Your task to perform on an android device: change notification settings in the gmail app Image 0: 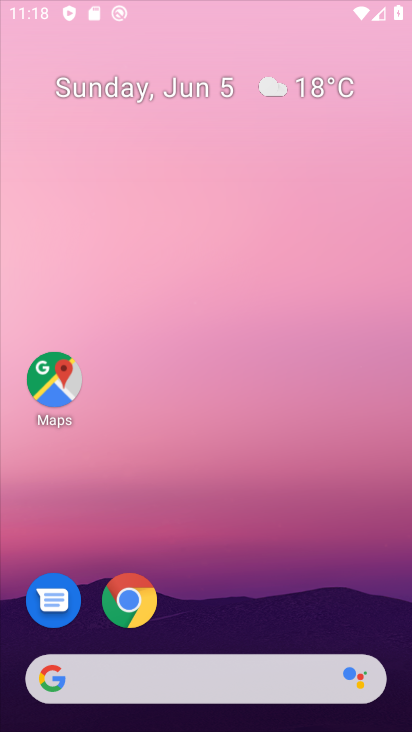
Step 0: click (170, 111)
Your task to perform on an android device: change notification settings in the gmail app Image 1: 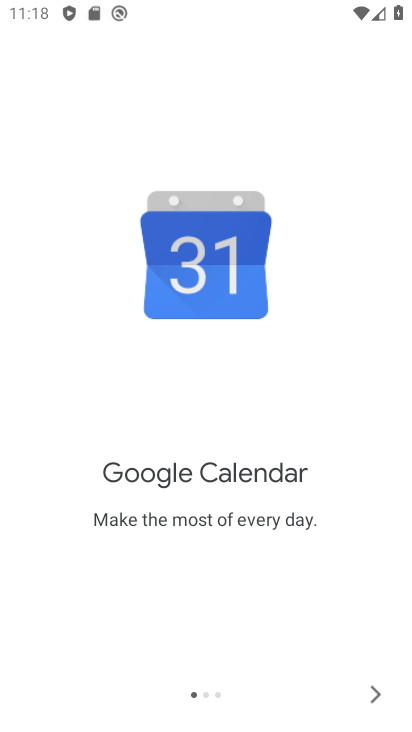
Step 1: press back button
Your task to perform on an android device: change notification settings in the gmail app Image 2: 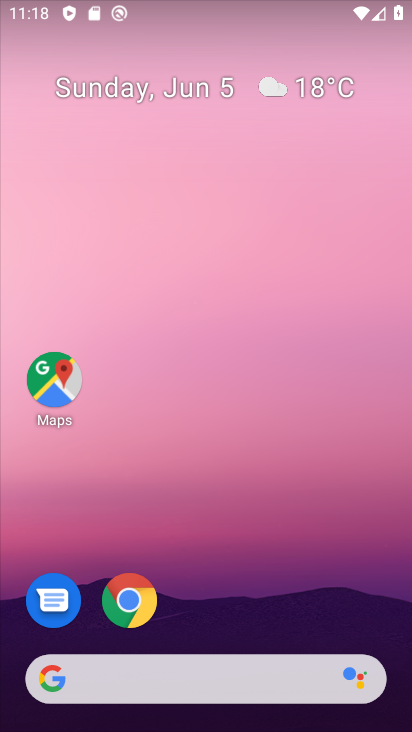
Step 2: drag from (191, 469) to (135, 108)
Your task to perform on an android device: change notification settings in the gmail app Image 3: 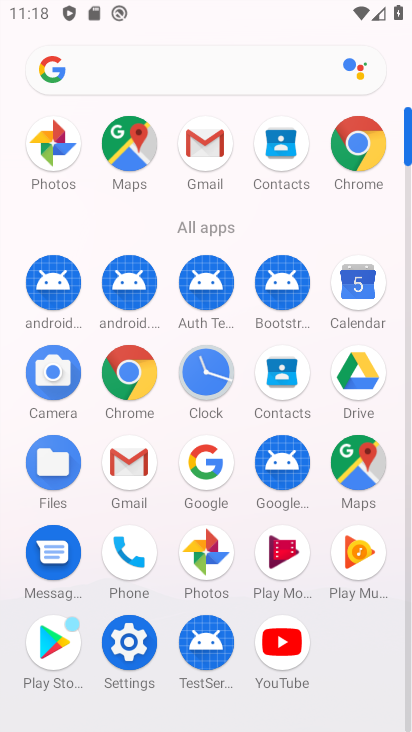
Step 3: click (203, 166)
Your task to perform on an android device: change notification settings in the gmail app Image 4: 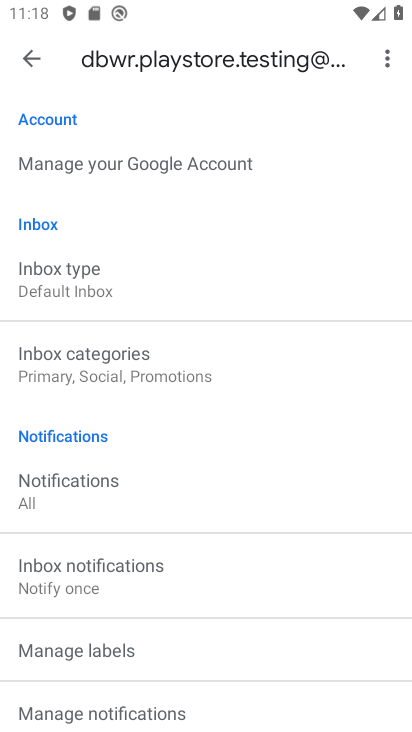
Step 4: click (65, 445)
Your task to perform on an android device: change notification settings in the gmail app Image 5: 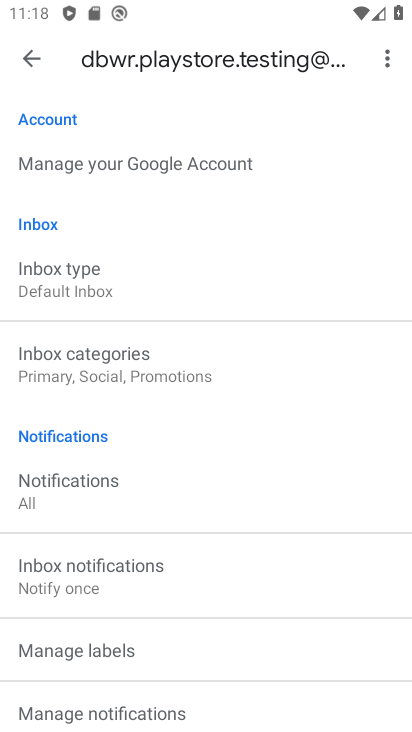
Step 5: click (62, 475)
Your task to perform on an android device: change notification settings in the gmail app Image 6: 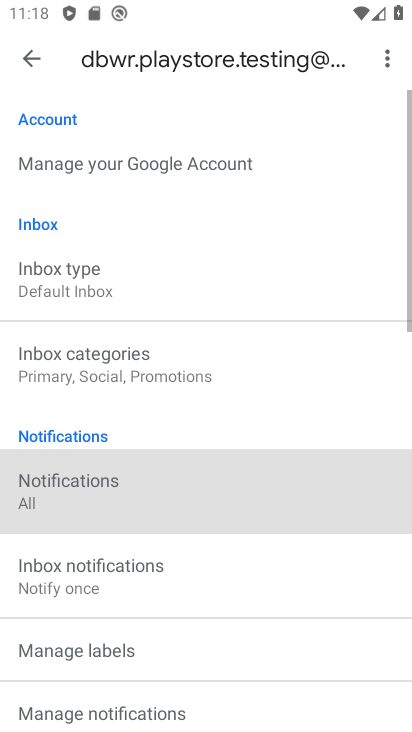
Step 6: click (62, 475)
Your task to perform on an android device: change notification settings in the gmail app Image 7: 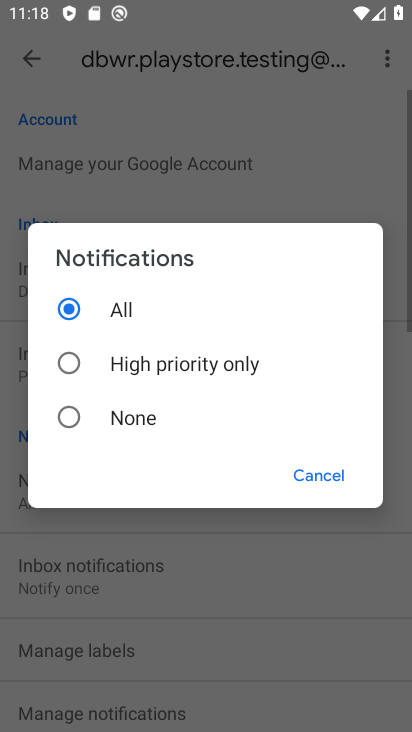
Step 7: click (62, 475)
Your task to perform on an android device: change notification settings in the gmail app Image 8: 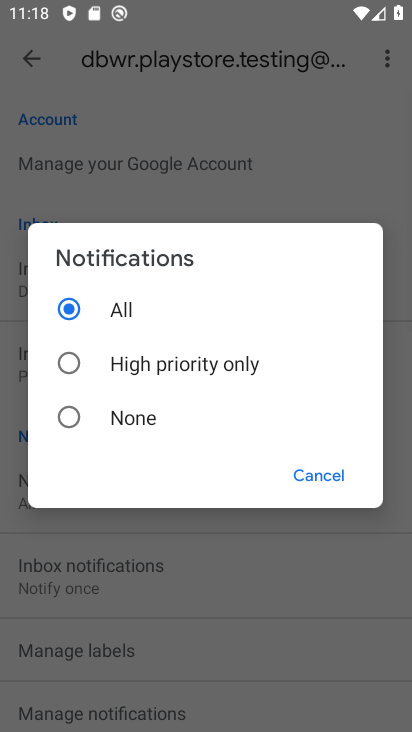
Step 8: click (66, 360)
Your task to perform on an android device: change notification settings in the gmail app Image 9: 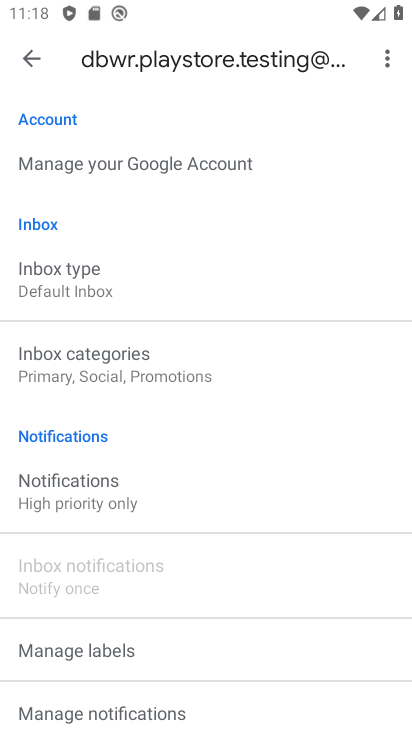
Step 9: task complete